Your task to perform on an android device: Go to Reddit.com Image 0: 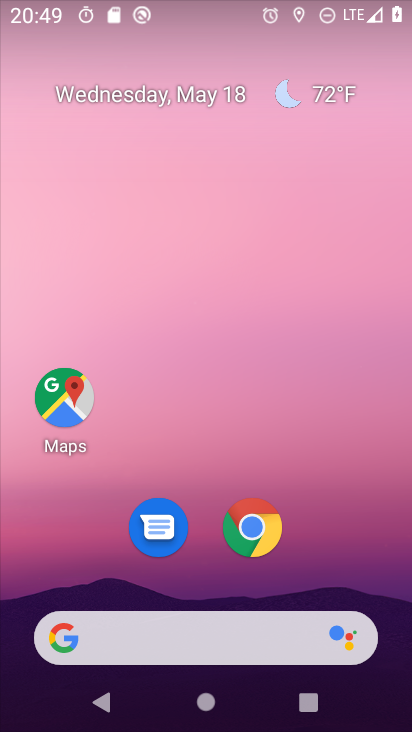
Step 0: drag from (384, 577) to (382, 244)
Your task to perform on an android device: Go to Reddit.com Image 1: 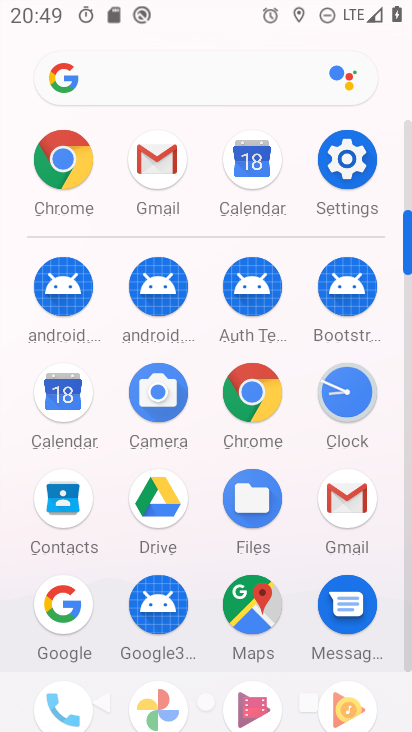
Step 1: click (241, 399)
Your task to perform on an android device: Go to Reddit.com Image 2: 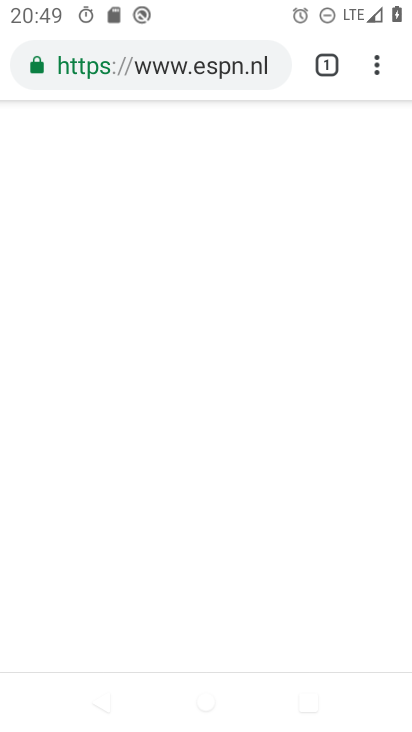
Step 2: press home button
Your task to perform on an android device: Go to Reddit.com Image 3: 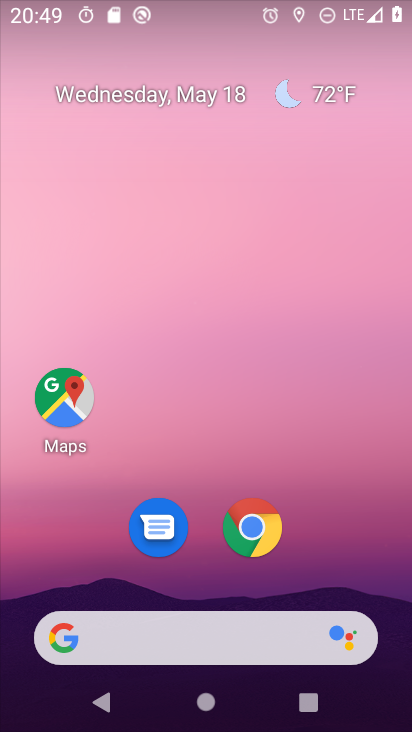
Step 3: click (252, 521)
Your task to perform on an android device: Go to Reddit.com Image 4: 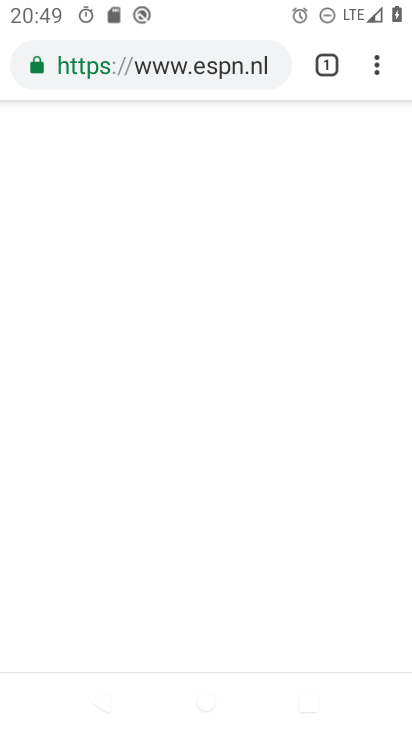
Step 4: click (275, 68)
Your task to perform on an android device: Go to Reddit.com Image 5: 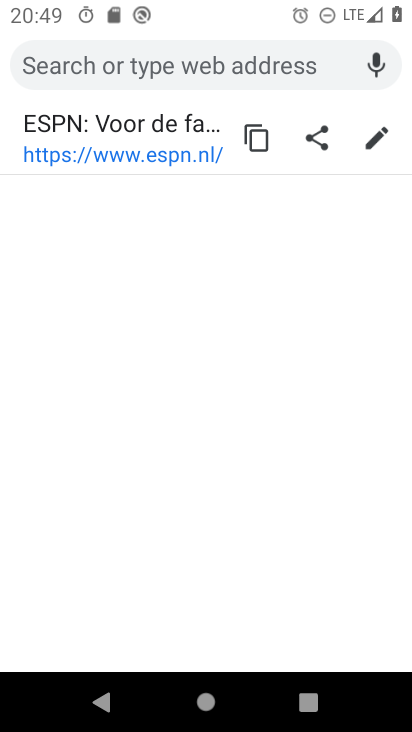
Step 5: type "Reddit.com"
Your task to perform on an android device: Go to Reddit.com Image 6: 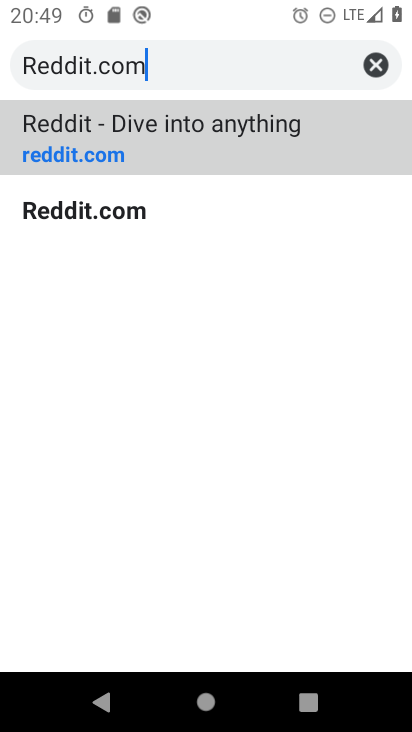
Step 6: click (81, 212)
Your task to perform on an android device: Go to Reddit.com Image 7: 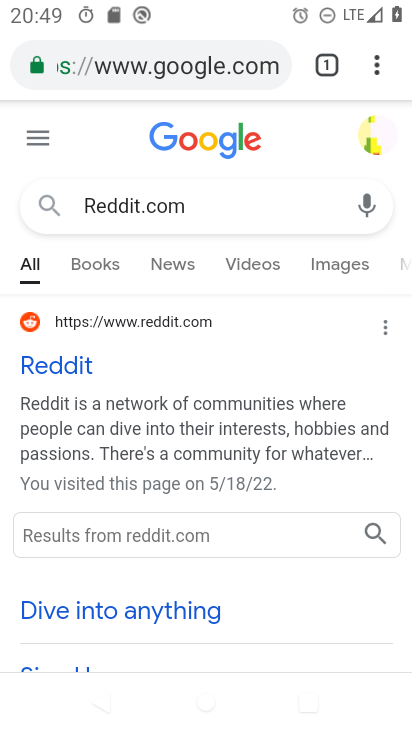
Step 7: task complete